Your task to perform on an android device: Toggle the flashlight Image 0: 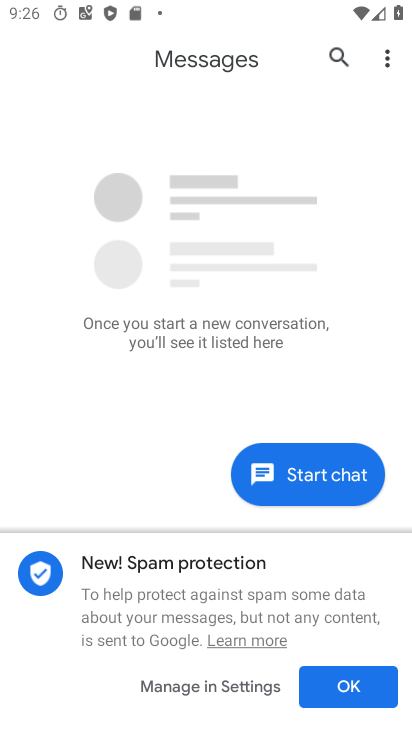
Step 0: press home button
Your task to perform on an android device: Toggle the flashlight Image 1: 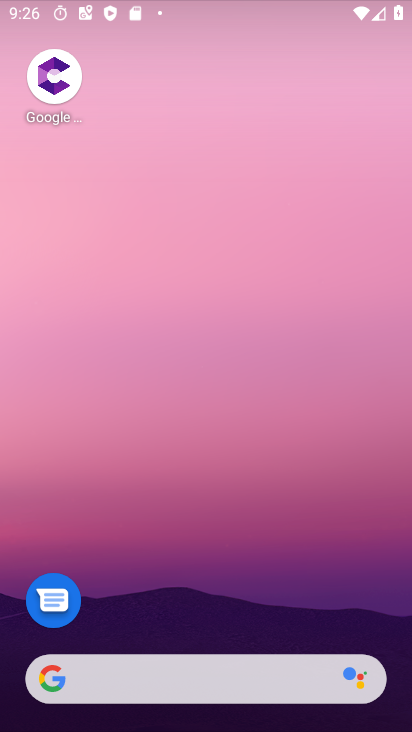
Step 1: drag from (177, 606) to (192, 40)
Your task to perform on an android device: Toggle the flashlight Image 2: 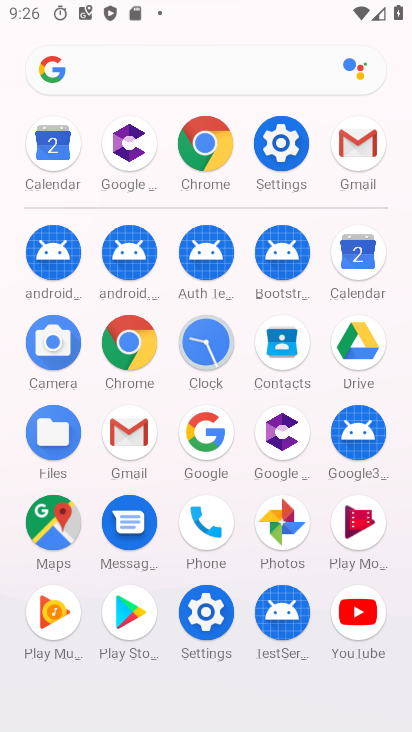
Step 2: click (279, 140)
Your task to perform on an android device: Toggle the flashlight Image 3: 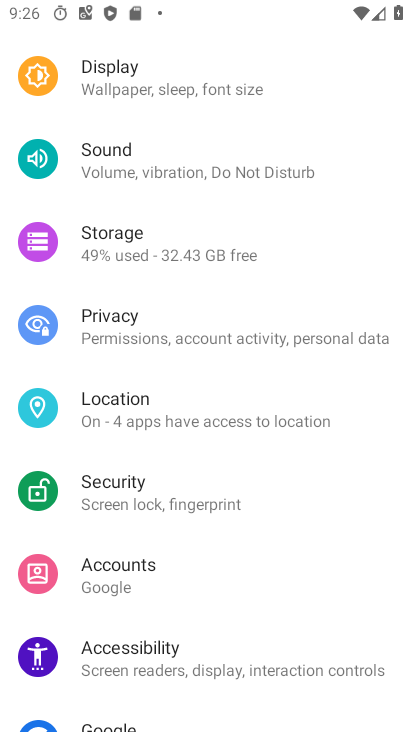
Step 3: drag from (185, 144) to (200, 583)
Your task to perform on an android device: Toggle the flashlight Image 4: 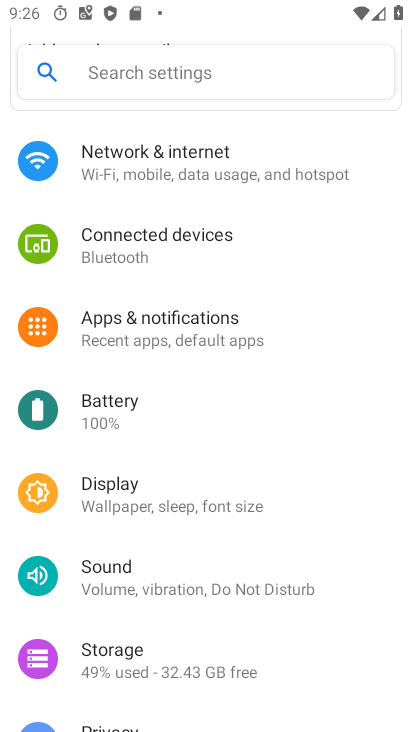
Step 4: click (172, 63)
Your task to perform on an android device: Toggle the flashlight Image 5: 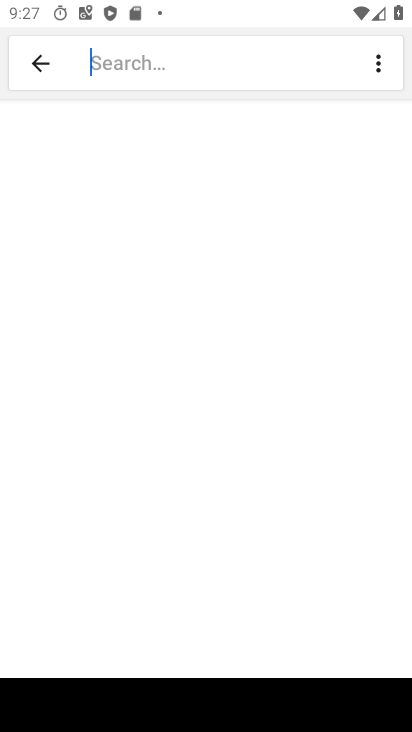
Step 5: type "flash"
Your task to perform on an android device: Toggle the flashlight Image 6: 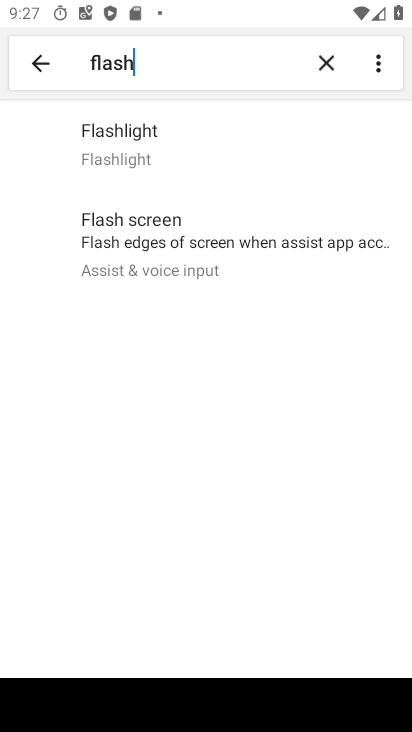
Step 6: task complete